Your task to perform on an android device: Clear all items from cart on newegg.com. Search for "beats solo 3" on newegg.com, select the first entry, add it to the cart, then select checkout. Image 0: 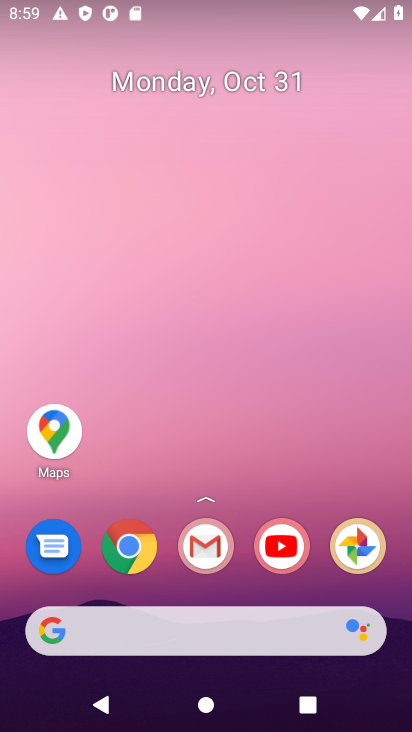
Step 0: click (142, 551)
Your task to perform on an android device: Clear all items from cart on newegg.com. Search for "beats solo 3" on newegg.com, select the first entry, add it to the cart, then select checkout. Image 1: 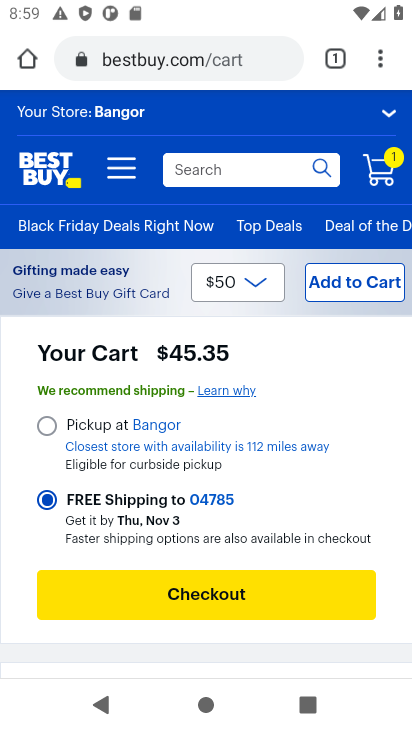
Step 1: click (164, 69)
Your task to perform on an android device: Clear all items from cart on newegg.com. Search for "beats solo 3" on newegg.com, select the first entry, add it to the cart, then select checkout. Image 2: 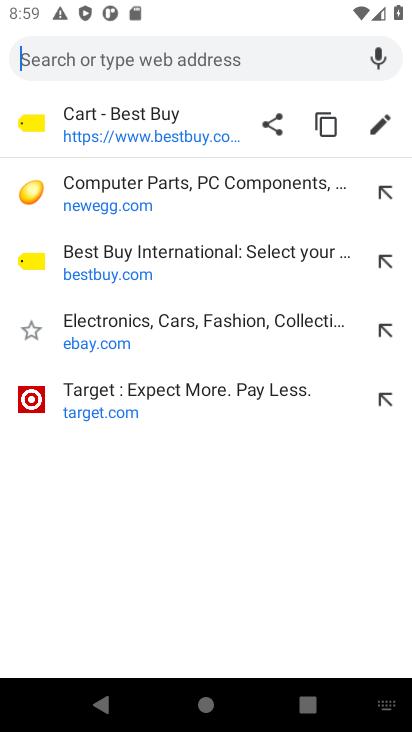
Step 2: type "newegg.com"
Your task to perform on an android device: Clear all items from cart on newegg.com. Search for "beats solo 3" on newegg.com, select the first entry, add it to the cart, then select checkout. Image 3: 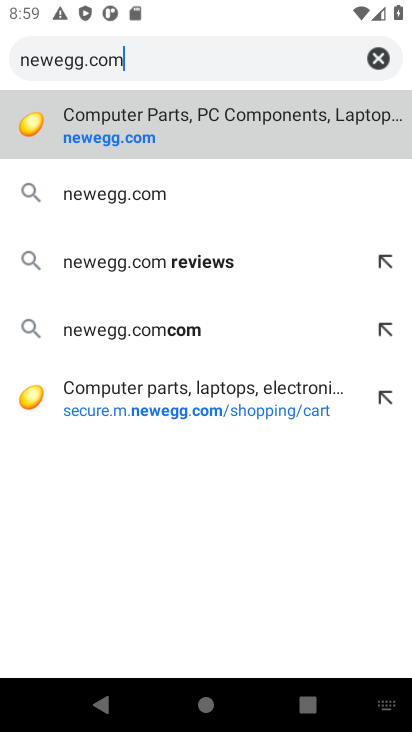
Step 3: press enter
Your task to perform on an android device: Clear all items from cart on newegg.com. Search for "beats solo 3" on newegg.com, select the first entry, add it to the cart, then select checkout. Image 4: 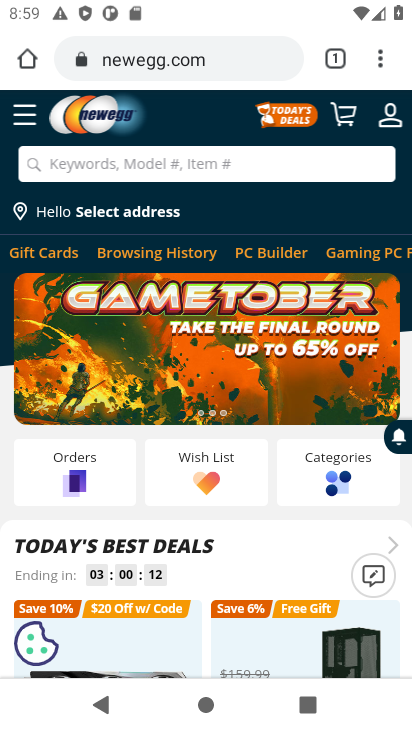
Step 4: click (342, 119)
Your task to perform on an android device: Clear all items from cart on newegg.com. Search for "beats solo 3" on newegg.com, select the first entry, add it to the cart, then select checkout. Image 5: 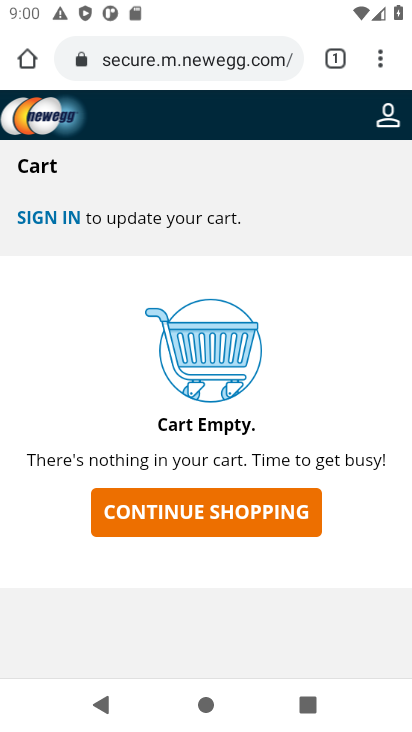
Step 5: click (47, 115)
Your task to perform on an android device: Clear all items from cart on newegg.com. Search for "beats solo 3" on newegg.com, select the first entry, add it to the cart, then select checkout. Image 6: 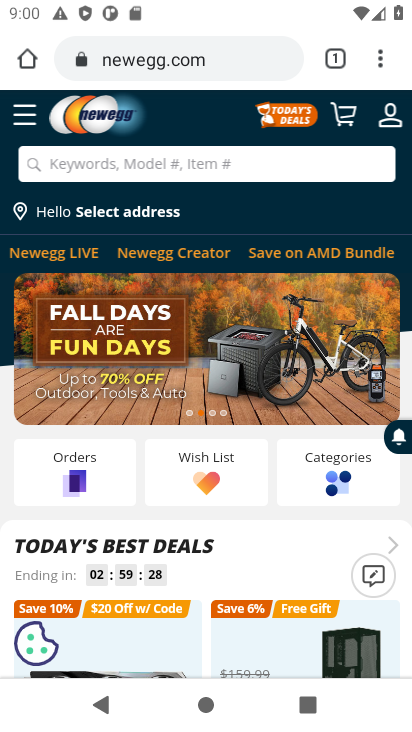
Step 6: click (146, 156)
Your task to perform on an android device: Clear all items from cart on newegg.com. Search for "beats solo 3" on newegg.com, select the first entry, add it to the cart, then select checkout. Image 7: 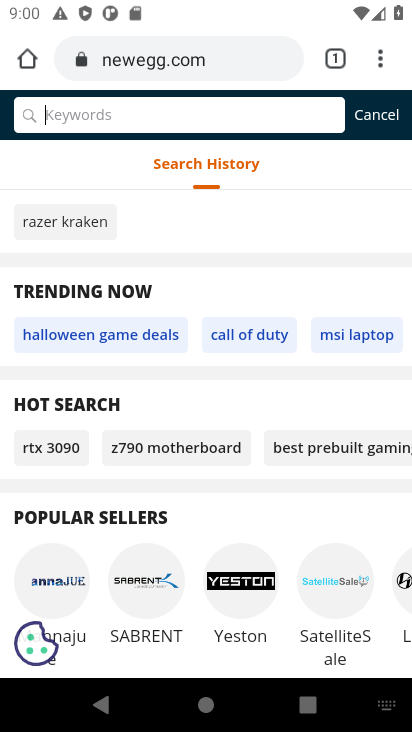
Step 7: type "beats solo 3"
Your task to perform on an android device: Clear all items from cart on newegg.com. Search for "beats solo 3" on newegg.com, select the first entry, add it to the cart, then select checkout. Image 8: 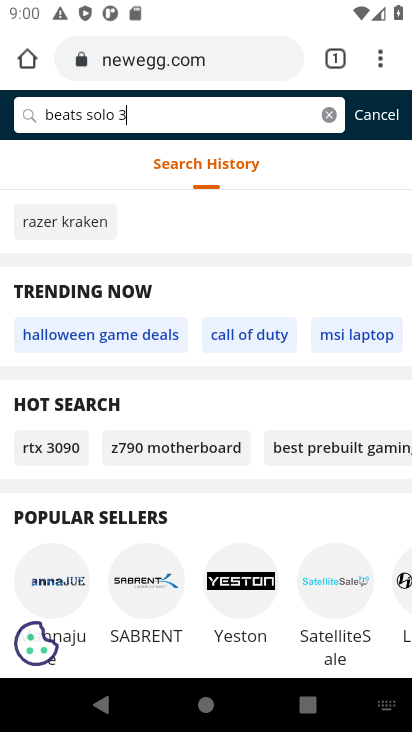
Step 8: press enter
Your task to perform on an android device: Clear all items from cart on newegg.com. Search for "beats solo 3" on newegg.com, select the first entry, add it to the cart, then select checkout. Image 9: 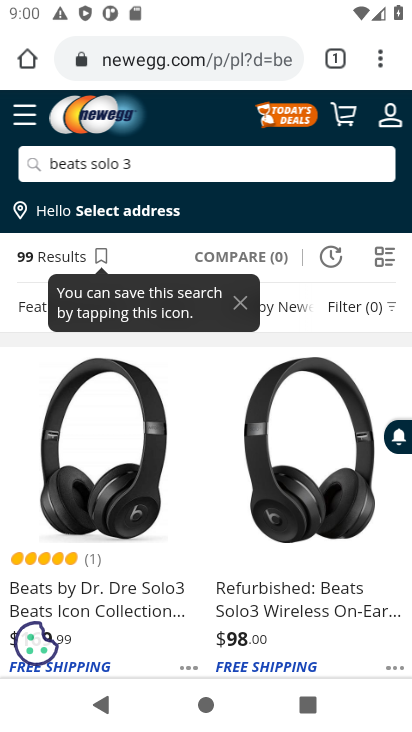
Step 9: drag from (165, 524) to (197, 389)
Your task to perform on an android device: Clear all items from cart on newegg.com. Search for "beats solo 3" on newegg.com, select the first entry, add it to the cart, then select checkout. Image 10: 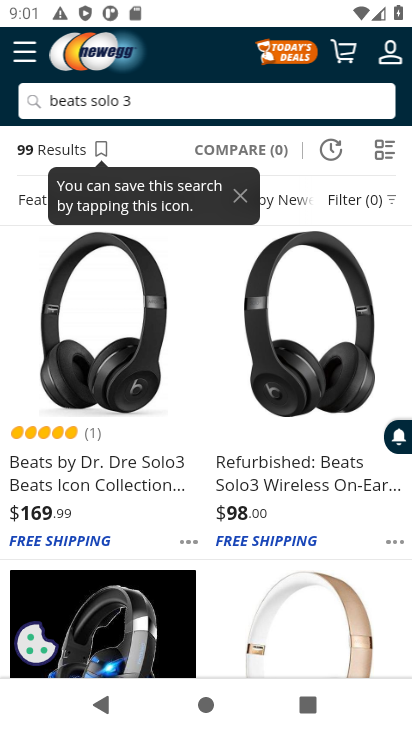
Step 10: click (109, 380)
Your task to perform on an android device: Clear all items from cart on newegg.com. Search for "beats solo 3" on newegg.com, select the first entry, add it to the cart, then select checkout. Image 11: 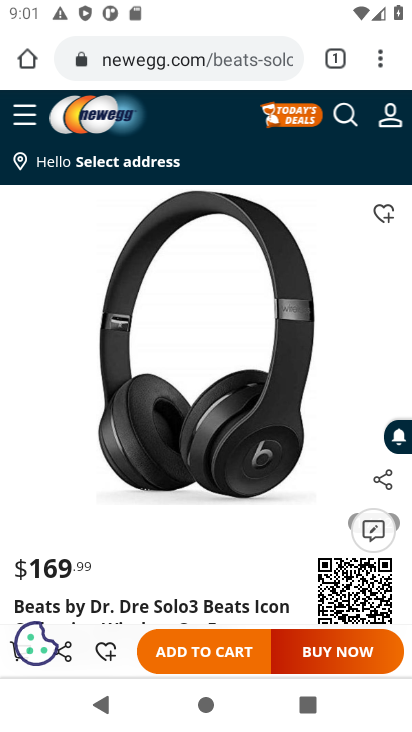
Step 11: click (202, 654)
Your task to perform on an android device: Clear all items from cart on newegg.com. Search for "beats solo 3" on newegg.com, select the first entry, add it to the cart, then select checkout. Image 12: 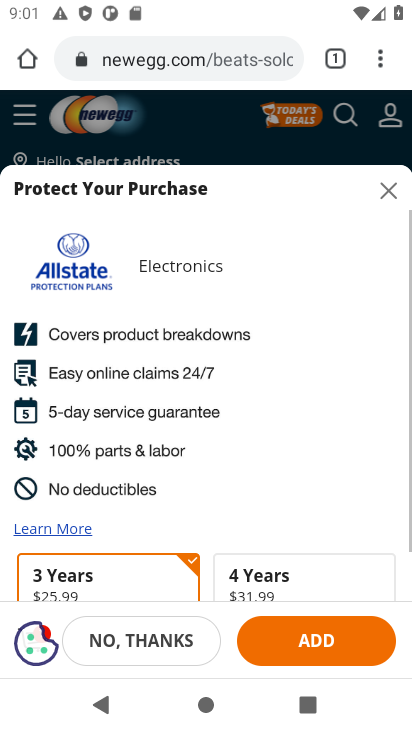
Step 12: drag from (206, 521) to (240, 386)
Your task to perform on an android device: Clear all items from cart on newegg.com. Search for "beats solo 3" on newegg.com, select the first entry, add it to the cart, then select checkout. Image 13: 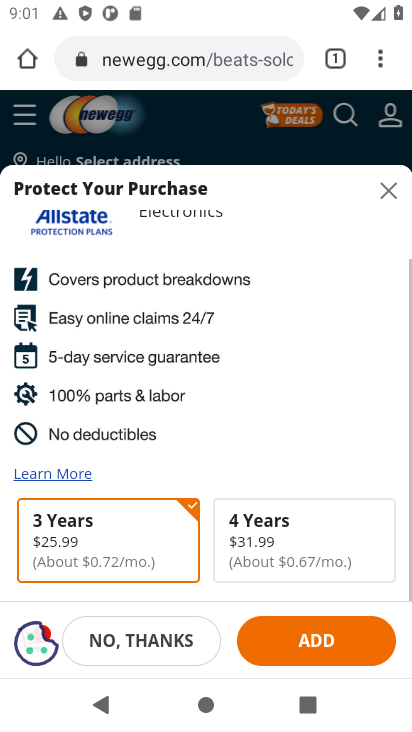
Step 13: click (297, 645)
Your task to perform on an android device: Clear all items from cart on newegg.com. Search for "beats solo 3" on newegg.com, select the first entry, add it to the cart, then select checkout. Image 14: 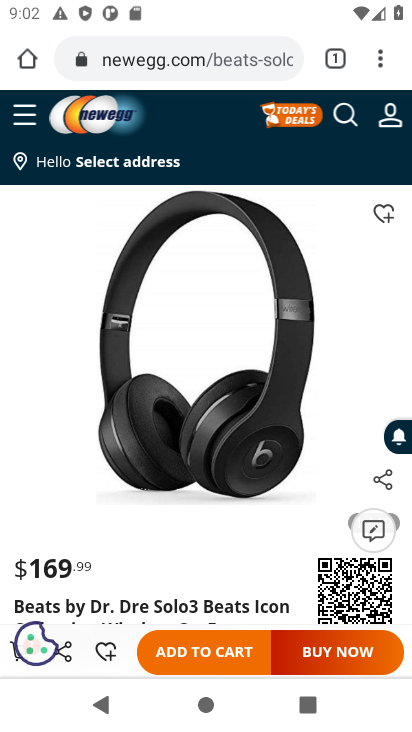
Step 14: click (195, 656)
Your task to perform on an android device: Clear all items from cart on newegg.com. Search for "beats solo 3" on newegg.com, select the first entry, add it to the cart, then select checkout. Image 15: 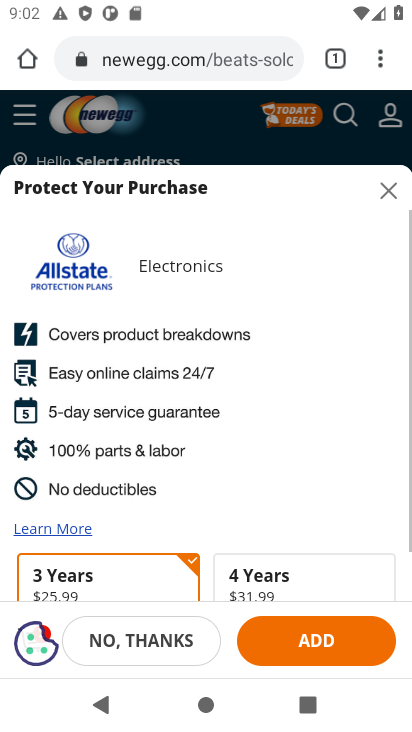
Step 15: click (278, 642)
Your task to perform on an android device: Clear all items from cart on newegg.com. Search for "beats solo 3" on newegg.com, select the first entry, add it to the cart, then select checkout. Image 16: 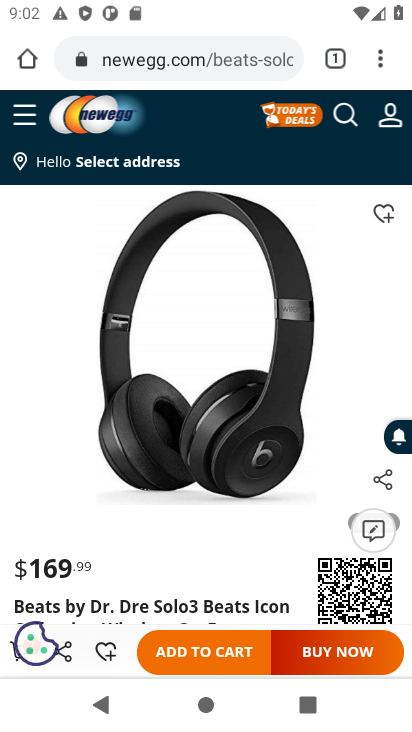
Step 16: click (30, 112)
Your task to perform on an android device: Clear all items from cart on newegg.com. Search for "beats solo 3" on newegg.com, select the first entry, add it to the cart, then select checkout. Image 17: 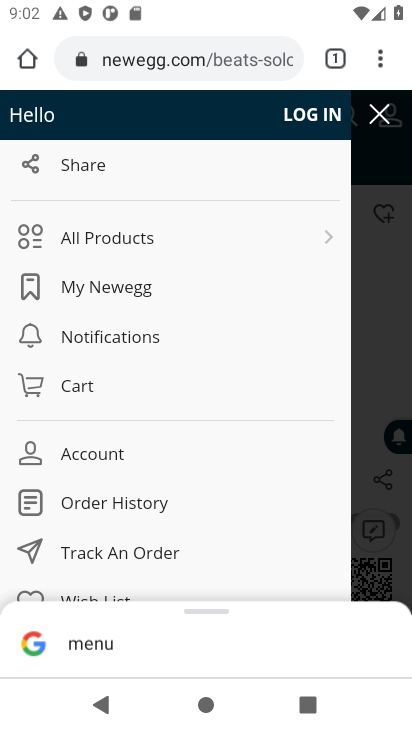
Step 17: click (77, 377)
Your task to perform on an android device: Clear all items from cart on newegg.com. Search for "beats solo 3" on newegg.com, select the first entry, add it to the cart, then select checkout. Image 18: 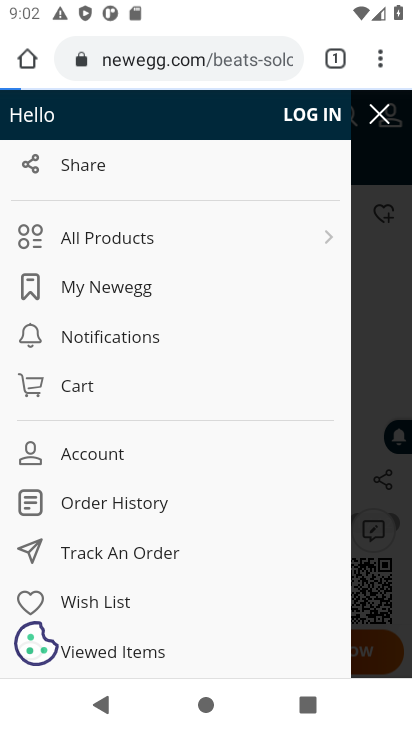
Step 18: click (72, 390)
Your task to perform on an android device: Clear all items from cart on newegg.com. Search for "beats solo 3" on newegg.com, select the first entry, add it to the cart, then select checkout. Image 19: 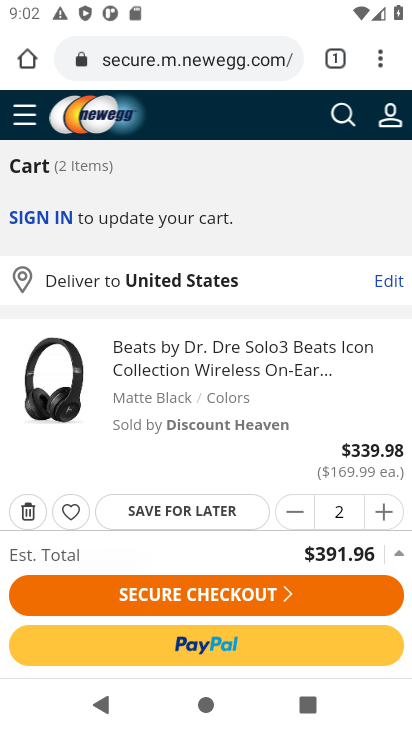
Step 19: click (299, 515)
Your task to perform on an android device: Clear all items from cart on newegg.com. Search for "beats solo 3" on newegg.com, select the first entry, add it to the cart, then select checkout. Image 20: 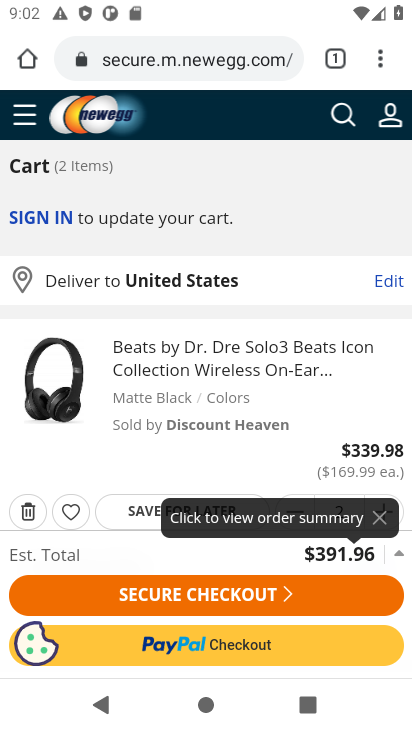
Step 20: click (163, 439)
Your task to perform on an android device: Clear all items from cart on newegg.com. Search for "beats solo 3" on newegg.com, select the first entry, add it to the cart, then select checkout. Image 21: 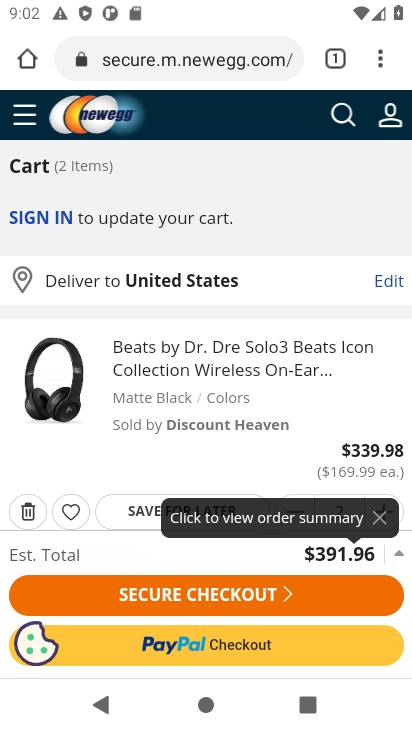
Step 21: click (259, 469)
Your task to perform on an android device: Clear all items from cart on newegg.com. Search for "beats solo 3" on newegg.com, select the first entry, add it to the cart, then select checkout. Image 22: 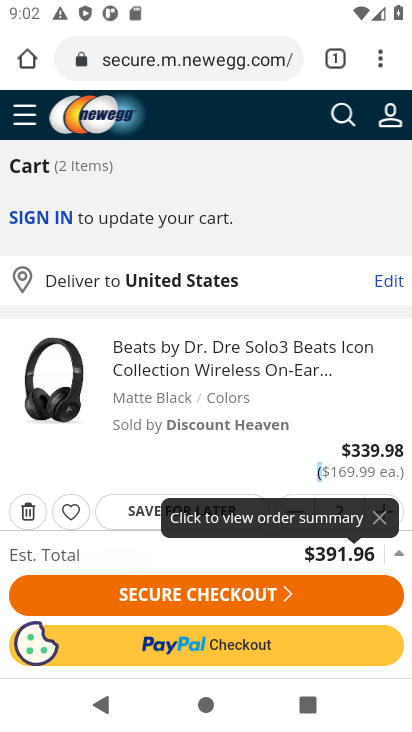
Step 22: click (157, 441)
Your task to perform on an android device: Clear all items from cart on newegg.com. Search for "beats solo 3" on newegg.com, select the first entry, add it to the cart, then select checkout. Image 23: 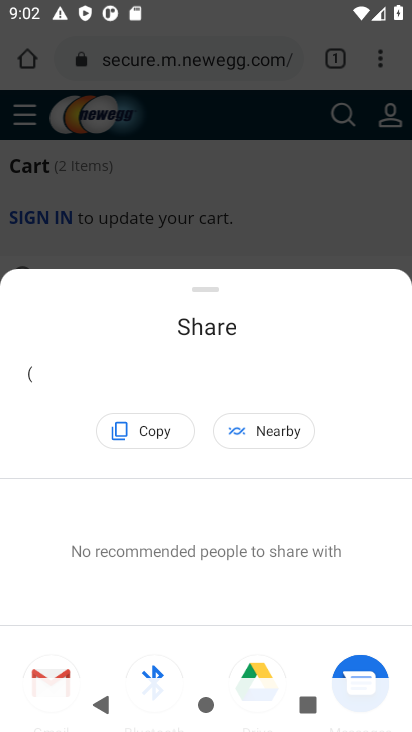
Step 23: click (195, 252)
Your task to perform on an android device: Clear all items from cart on newegg.com. Search for "beats solo 3" on newegg.com, select the first entry, add it to the cart, then select checkout. Image 24: 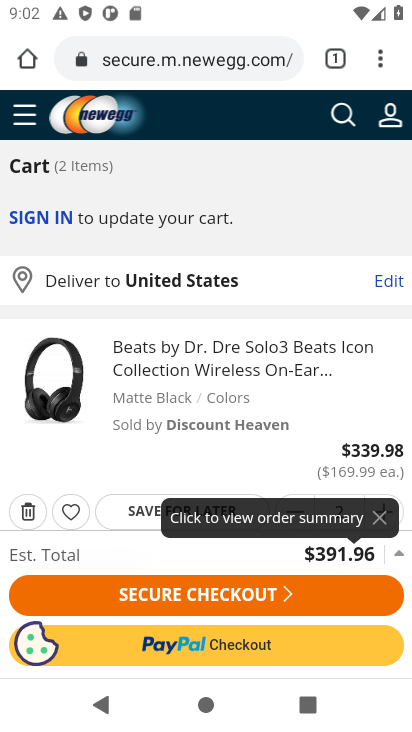
Step 24: click (383, 521)
Your task to perform on an android device: Clear all items from cart on newegg.com. Search for "beats solo 3" on newegg.com, select the first entry, add it to the cart, then select checkout. Image 25: 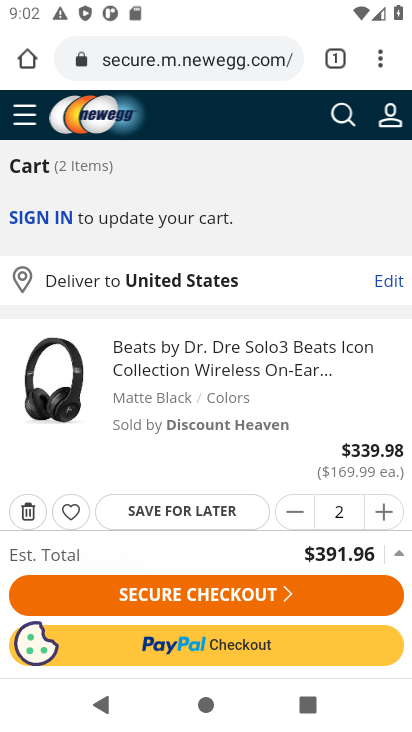
Step 25: click (303, 516)
Your task to perform on an android device: Clear all items from cart on newegg.com. Search for "beats solo 3" on newegg.com, select the first entry, add it to the cart, then select checkout. Image 26: 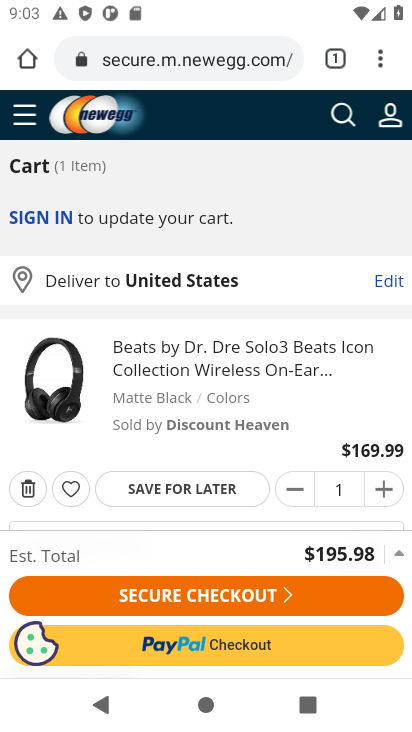
Step 26: click (265, 595)
Your task to perform on an android device: Clear all items from cart on newegg.com. Search for "beats solo 3" on newegg.com, select the first entry, add it to the cart, then select checkout. Image 27: 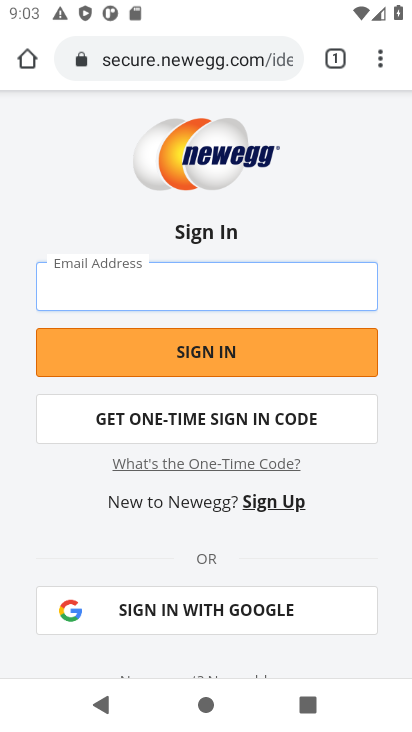
Step 27: task complete